Your task to perform on an android device: change notification settings in the gmail app Image 0: 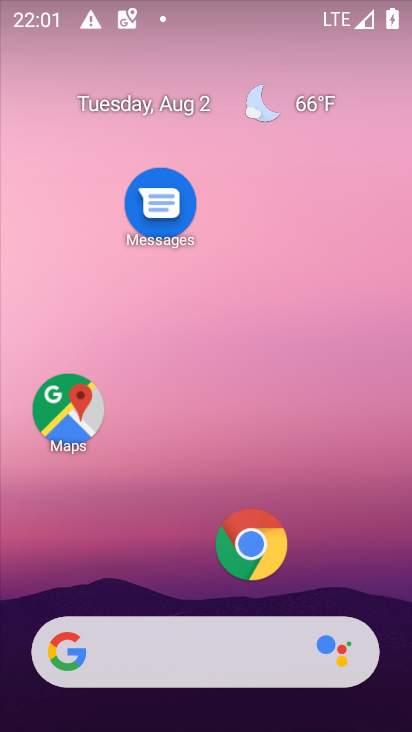
Step 0: drag from (204, 576) to (206, 183)
Your task to perform on an android device: change notification settings in the gmail app Image 1: 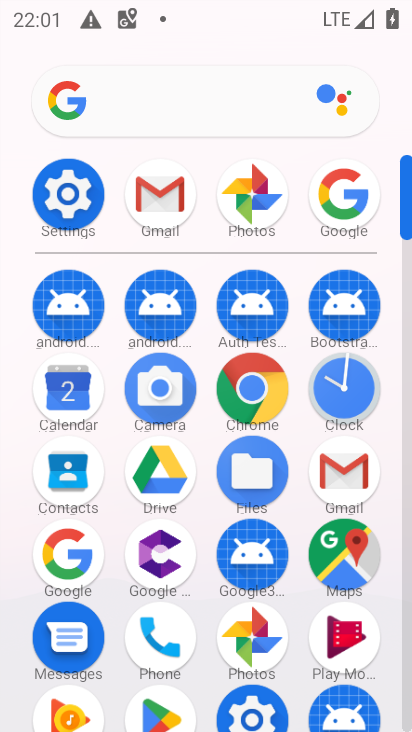
Step 1: click (328, 477)
Your task to perform on an android device: change notification settings in the gmail app Image 2: 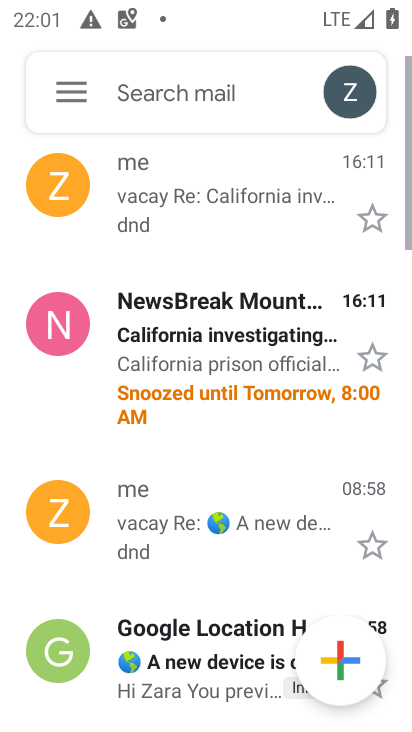
Step 2: click (73, 89)
Your task to perform on an android device: change notification settings in the gmail app Image 3: 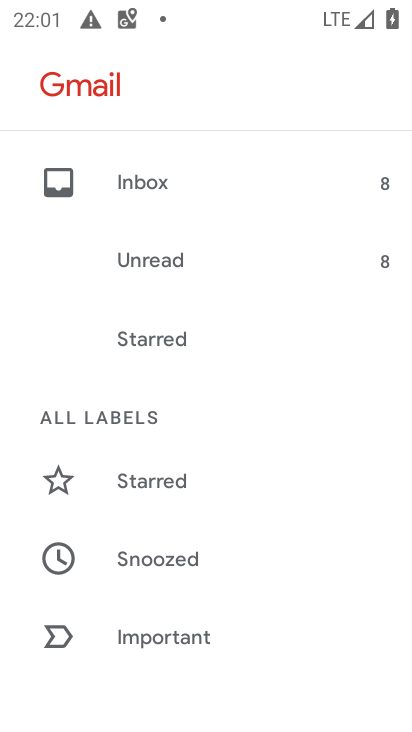
Step 3: drag from (188, 626) to (188, 271)
Your task to perform on an android device: change notification settings in the gmail app Image 4: 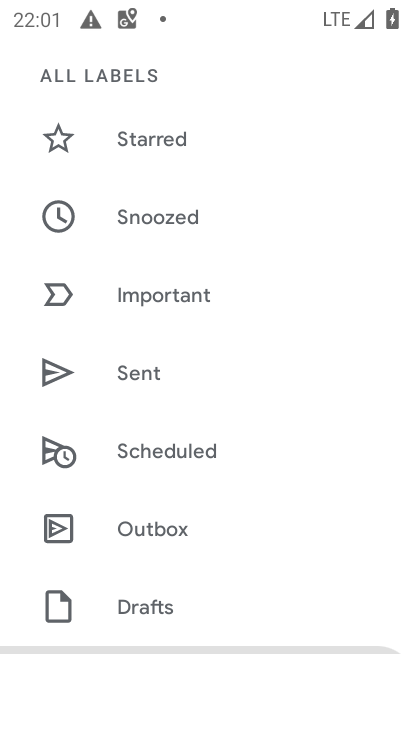
Step 4: drag from (164, 641) to (162, 224)
Your task to perform on an android device: change notification settings in the gmail app Image 5: 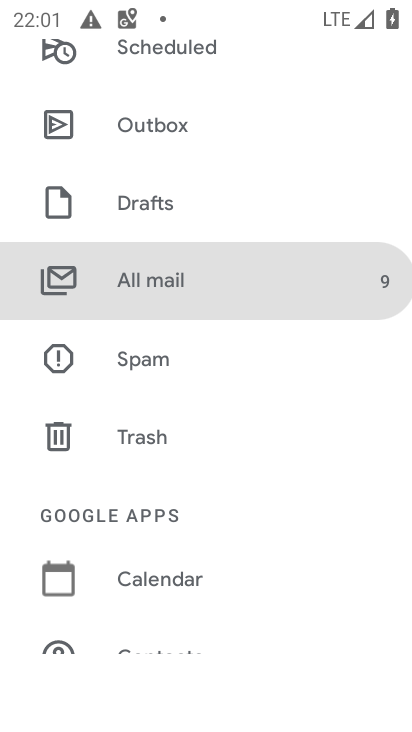
Step 5: drag from (164, 615) to (164, 257)
Your task to perform on an android device: change notification settings in the gmail app Image 6: 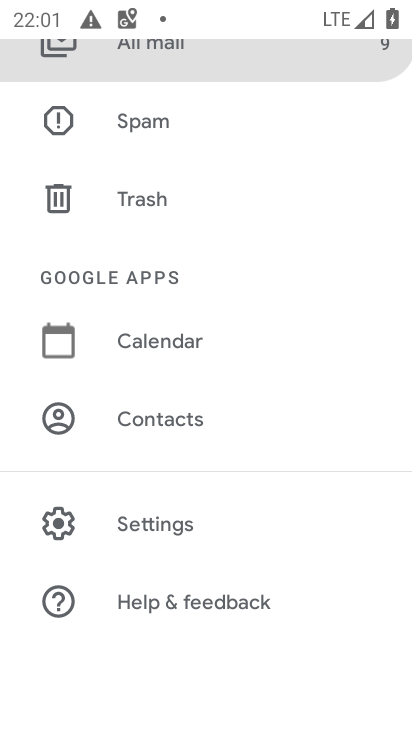
Step 6: click (160, 539)
Your task to perform on an android device: change notification settings in the gmail app Image 7: 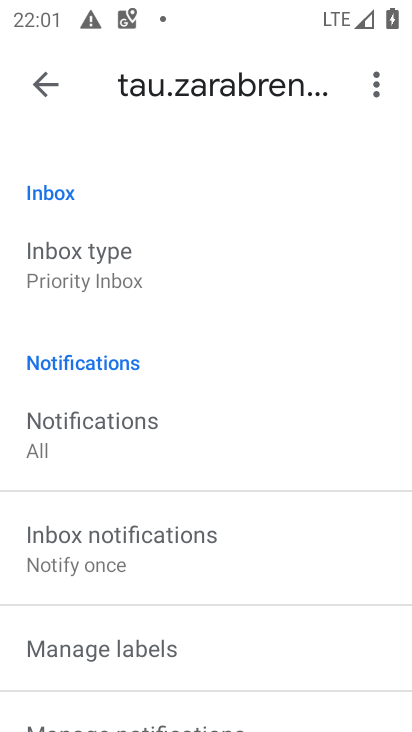
Step 7: drag from (165, 611) to (165, 287)
Your task to perform on an android device: change notification settings in the gmail app Image 8: 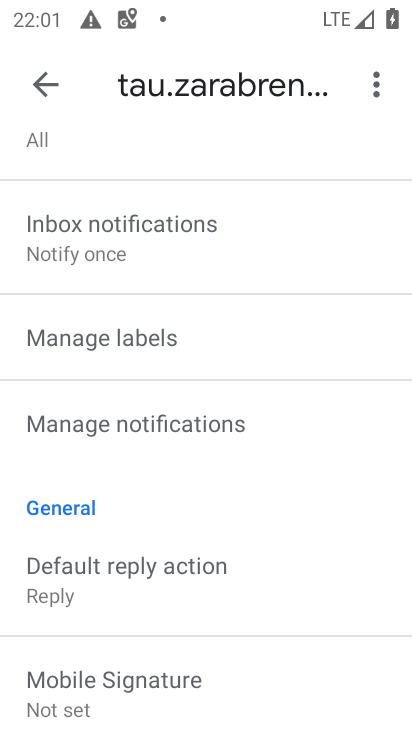
Step 8: click (155, 441)
Your task to perform on an android device: change notification settings in the gmail app Image 9: 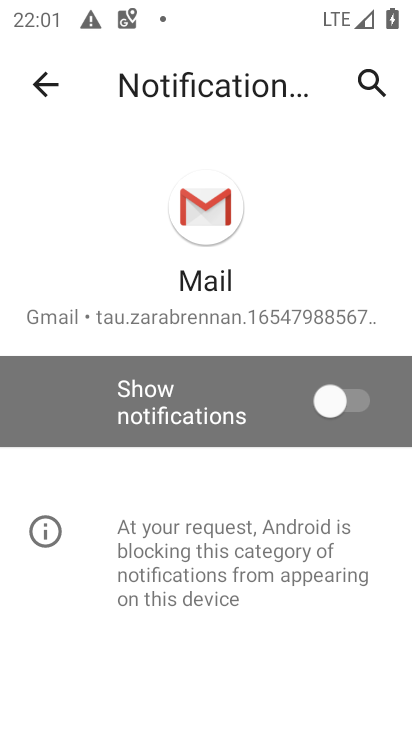
Step 9: click (342, 402)
Your task to perform on an android device: change notification settings in the gmail app Image 10: 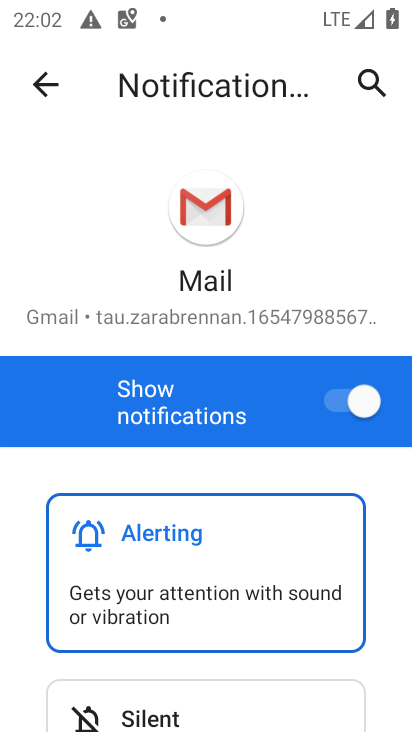
Step 10: task complete